Your task to perform on an android device: Open the web browser Image 0: 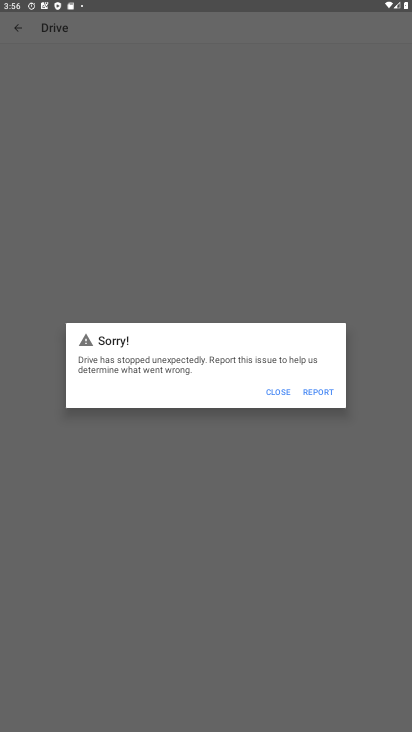
Step 0: press home button
Your task to perform on an android device: Open the web browser Image 1: 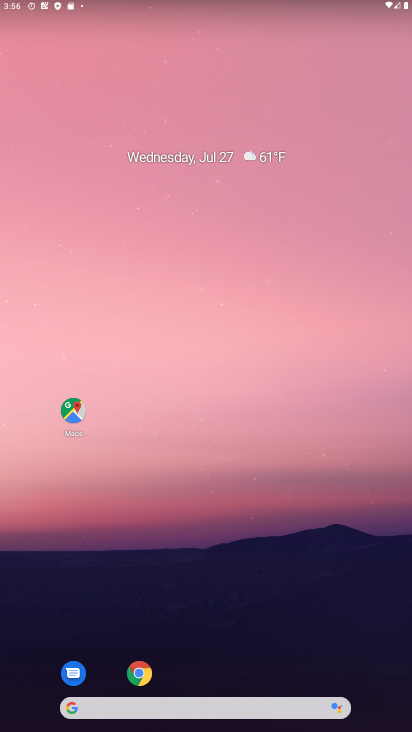
Step 1: task complete